Your task to perform on an android device: turn off data saver in the chrome app Image 0: 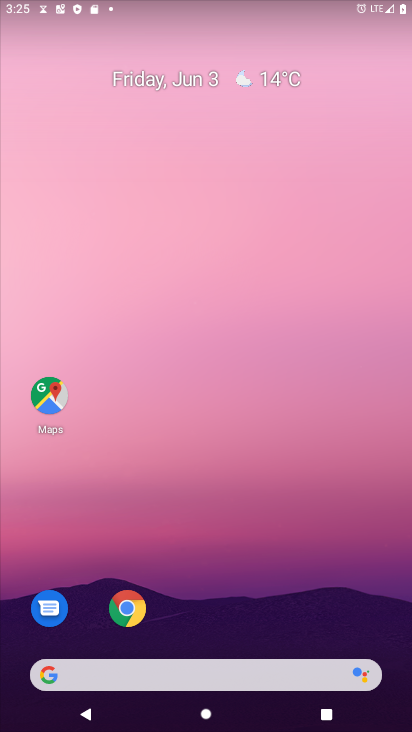
Step 0: click (129, 611)
Your task to perform on an android device: turn off data saver in the chrome app Image 1: 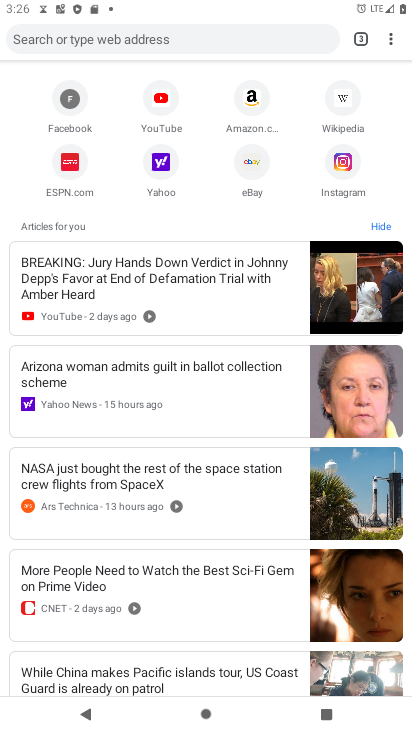
Step 1: drag from (386, 43) to (291, 369)
Your task to perform on an android device: turn off data saver in the chrome app Image 2: 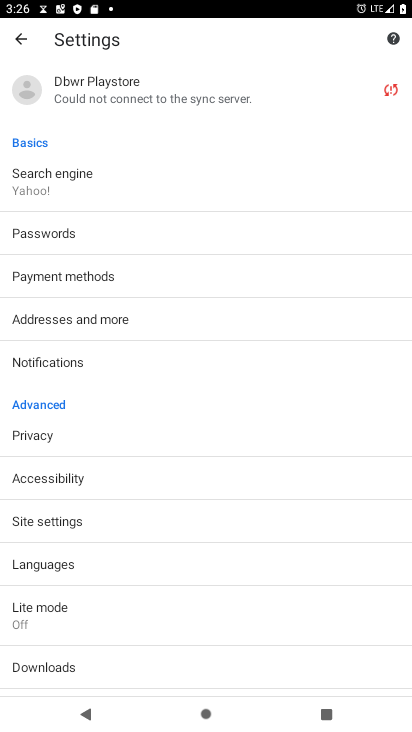
Step 2: click (96, 599)
Your task to perform on an android device: turn off data saver in the chrome app Image 3: 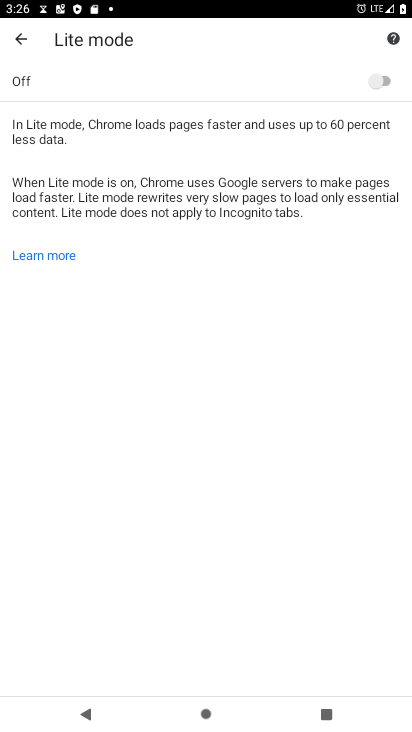
Step 3: task complete